Your task to perform on an android device: turn on wifi Image 0: 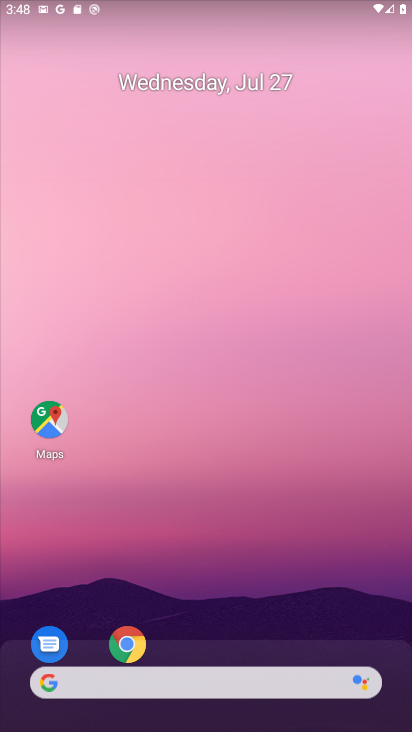
Step 0: drag from (235, 697) to (235, 137)
Your task to perform on an android device: turn on wifi Image 1: 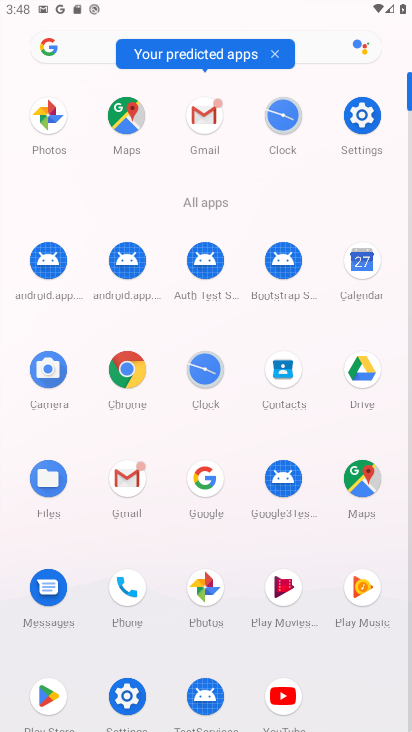
Step 1: click (365, 116)
Your task to perform on an android device: turn on wifi Image 2: 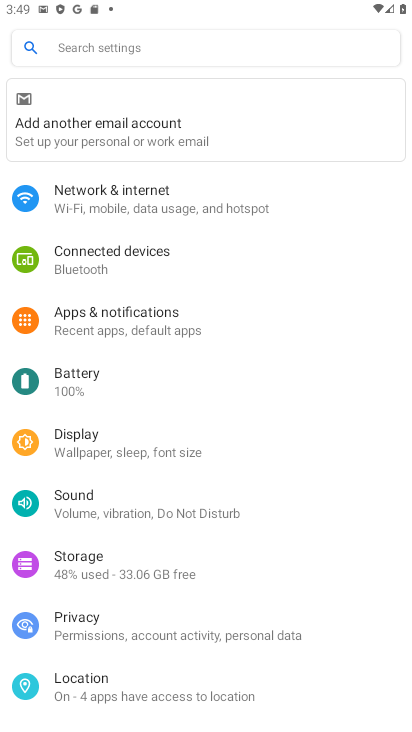
Step 2: click (131, 197)
Your task to perform on an android device: turn on wifi Image 3: 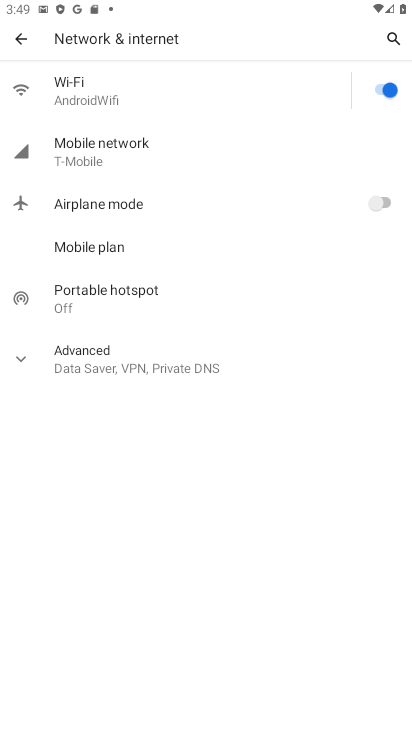
Step 3: task complete